Your task to perform on an android device: Open ESPN.com Image 0: 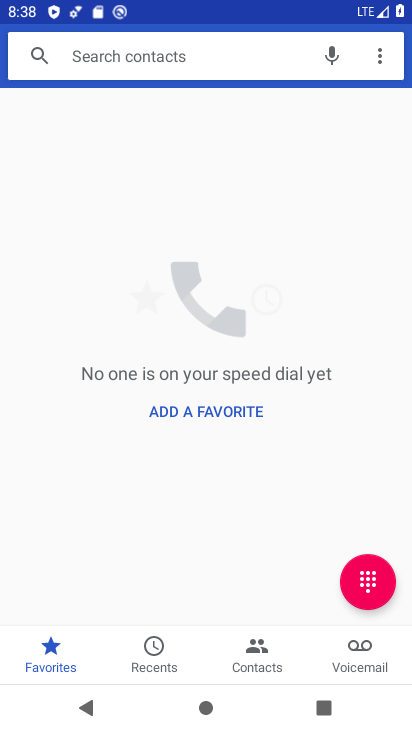
Step 0: press back button
Your task to perform on an android device: Open ESPN.com Image 1: 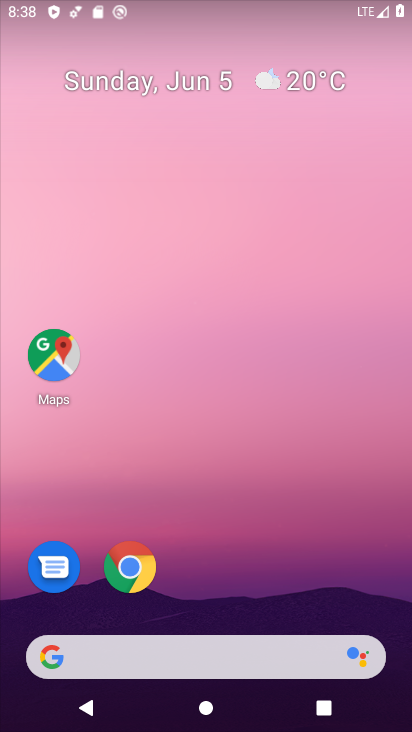
Step 1: click (131, 570)
Your task to perform on an android device: Open ESPN.com Image 2: 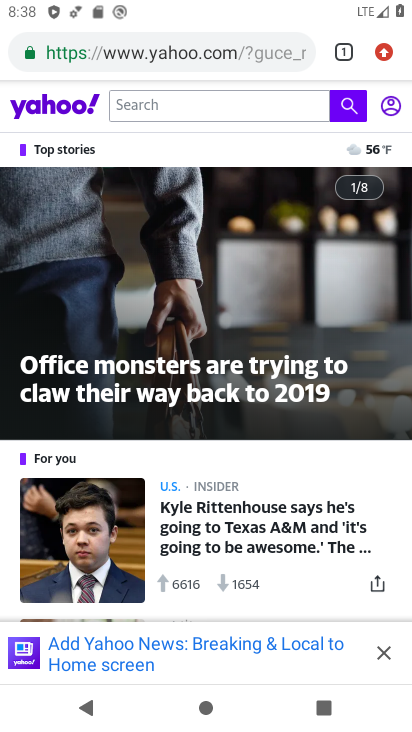
Step 2: click (281, 48)
Your task to perform on an android device: Open ESPN.com Image 3: 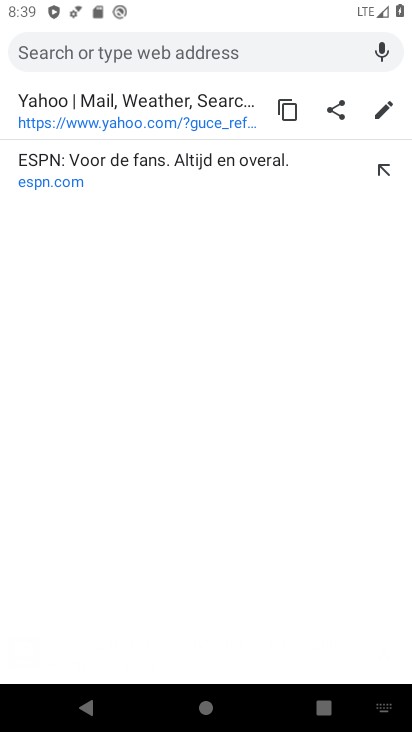
Step 3: type "ESPN.com"
Your task to perform on an android device: Open ESPN.com Image 4: 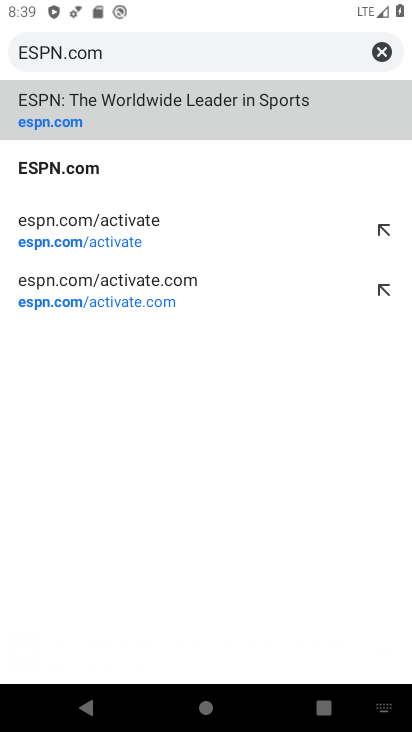
Step 4: click (80, 173)
Your task to perform on an android device: Open ESPN.com Image 5: 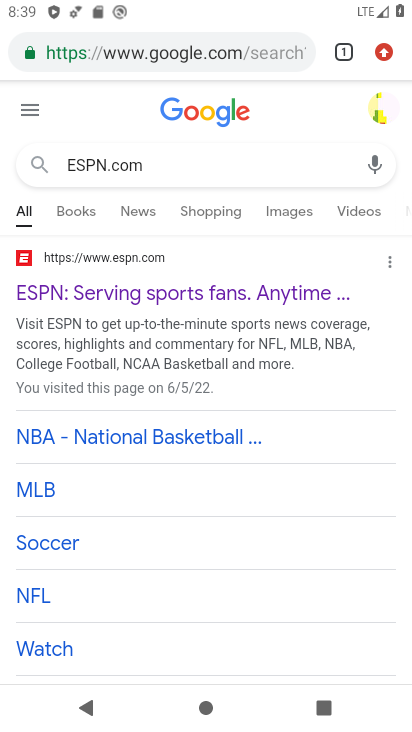
Step 5: click (74, 296)
Your task to perform on an android device: Open ESPN.com Image 6: 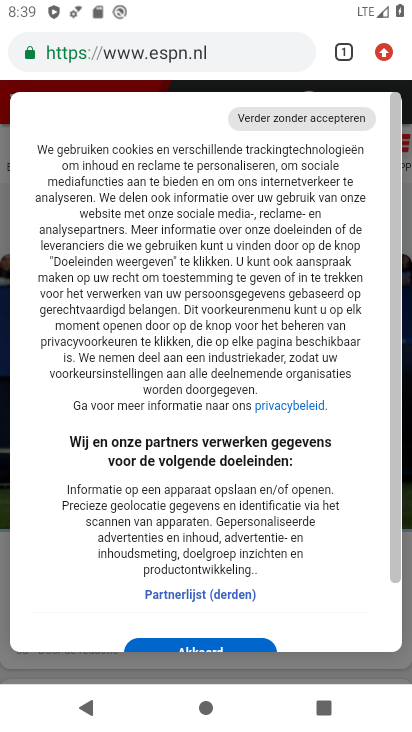
Step 6: task complete